Your task to perform on an android device: Open battery settings Image 0: 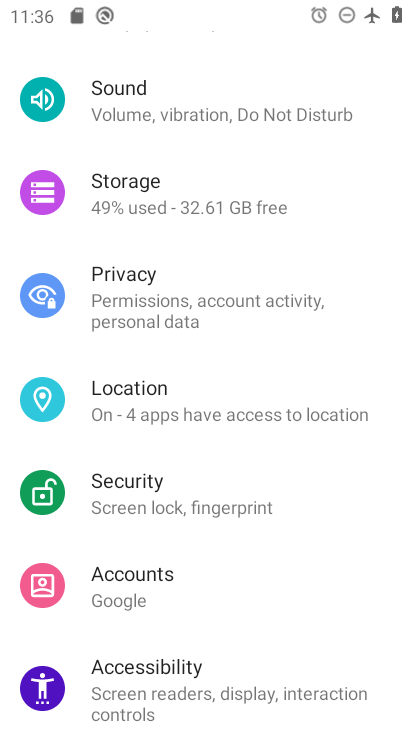
Step 0: drag from (255, 162) to (235, 643)
Your task to perform on an android device: Open battery settings Image 1: 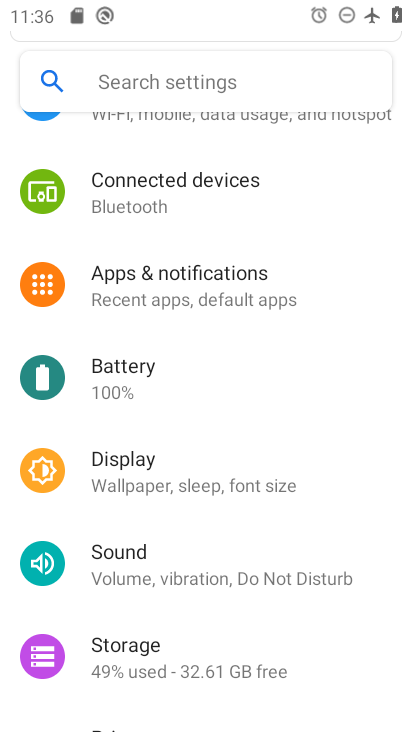
Step 1: click (188, 372)
Your task to perform on an android device: Open battery settings Image 2: 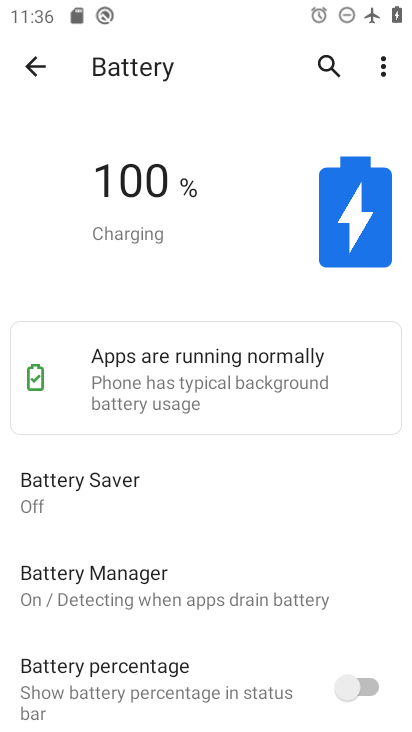
Step 2: task complete